Your task to perform on an android device: Open battery settings Image 0: 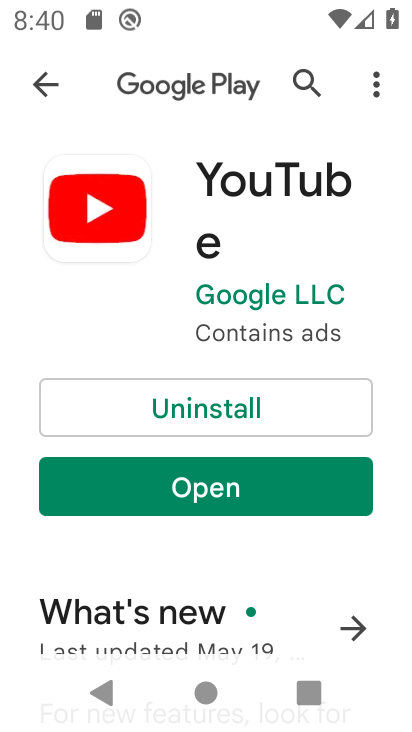
Step 0: press home button
Your task to perform on an android device: Open battery settings Image 1: 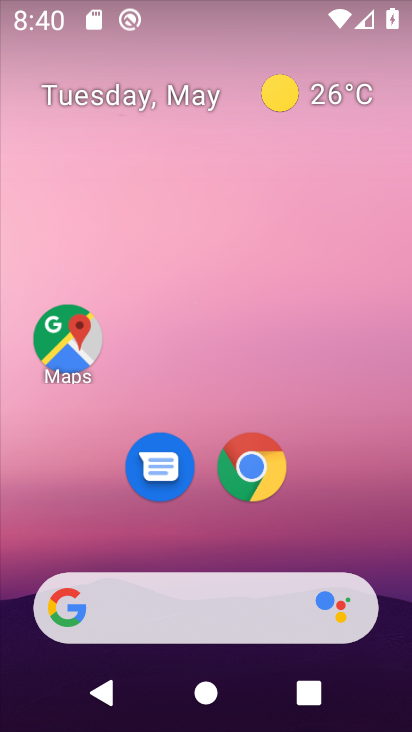
Step 1: drag from (388, 647) to (345, 243)
Your task to perform on an android device: Open battery settings Image 2: 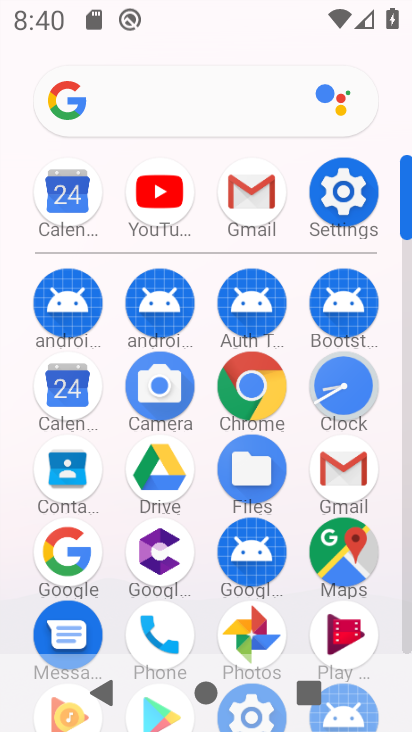
Step 2: click (322, 190)
Your task to perform on an android device: Open battery settings Image 3: 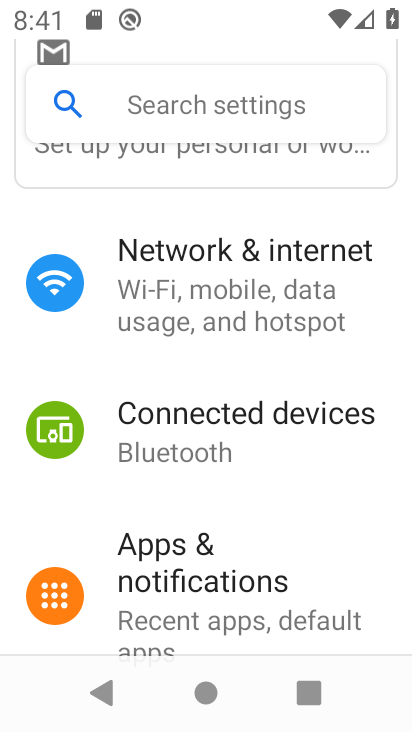
Step 3: drag from (257, 608) to (290, 320)
Your task to perform on an android device: Open battery settings Image 4: 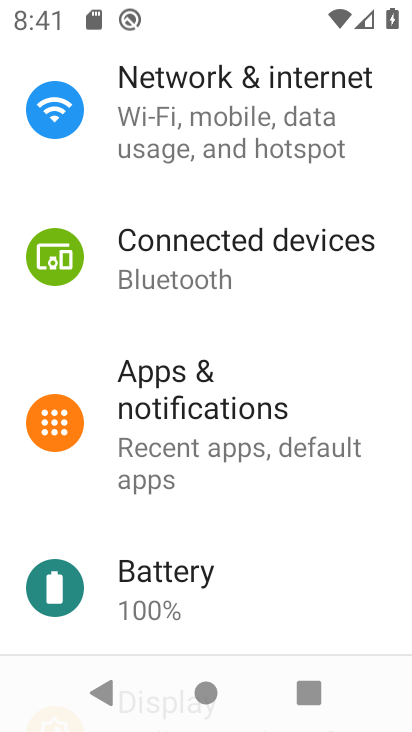
Step 4: drag from (309, 610) to (309, 402)
Your task to perform on an android device: Open battery settings Image 5: 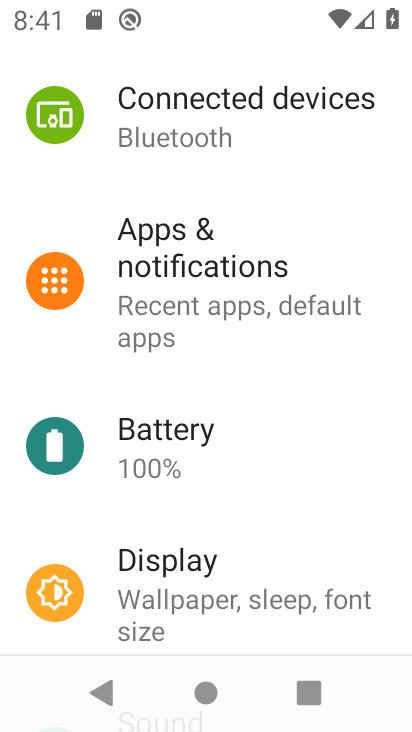
Step 5: click (132, 419)
Your task to perform on an android device: Open battery settings Image 6: 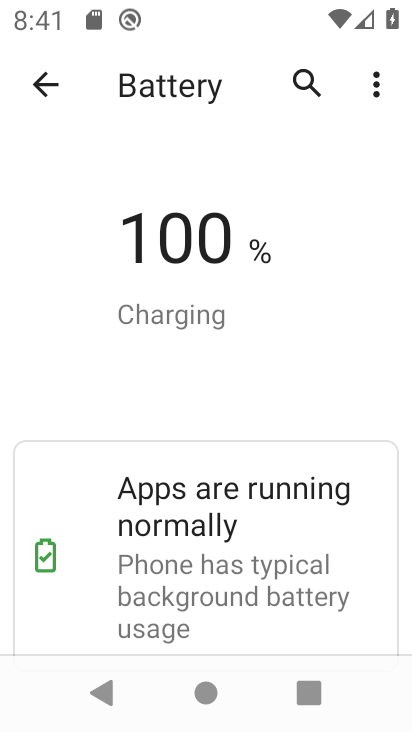
Step 6: task complete